Your task to perform on an android device: Open wifi settings Image 0: 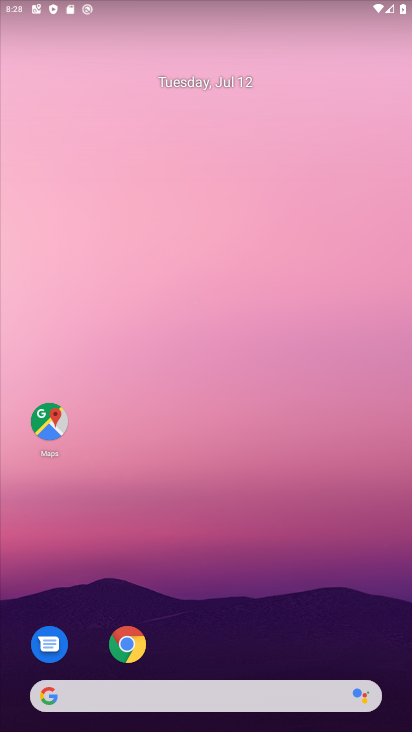
Step 0: drag from (190, 634) to (310, 43)
Your task to perform on an android device: Open wifi settings Image 1: 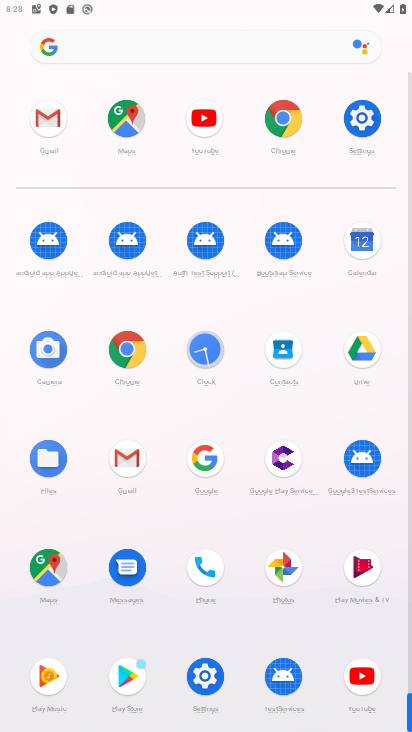
Step 1: click (363, 124)
Your task to perform on an android device: Open wifi settings Image 2: 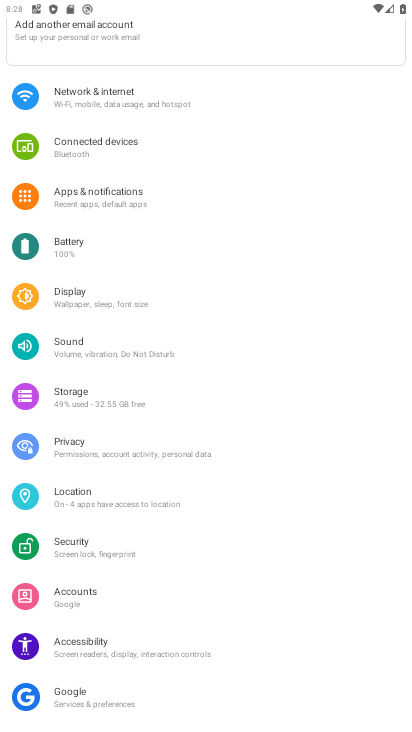
Step 2: drag from (157, 194) to (369, 710)
Your task to perform on an android device: Open wifi settings Image 3: 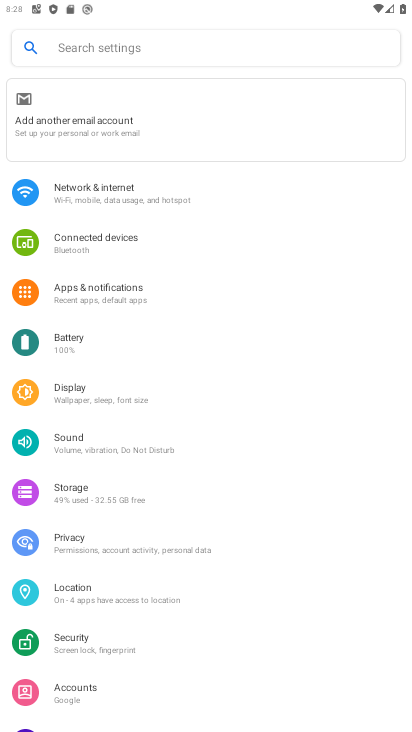
Step 3: click (99, 189)
Your task to perform on an android device: Open wifi settings Image 4: 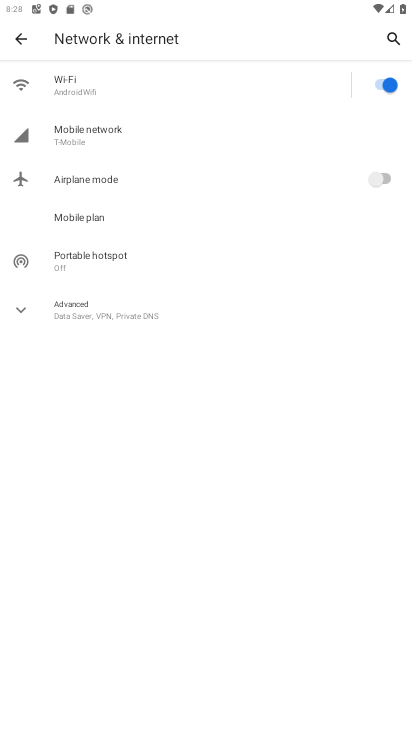
Step 4: click (153, 75)
Your task to perform on an android device: Open wifi settings Image 5: 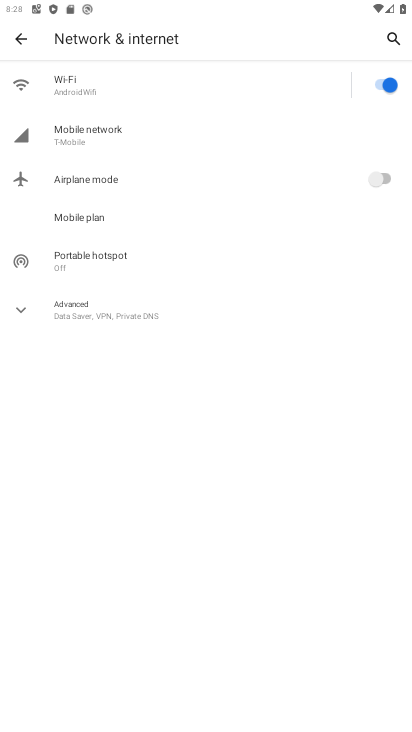
Step 5: click (153, 75)
Your task to perform on an android device: Open wifi settings Image 6: 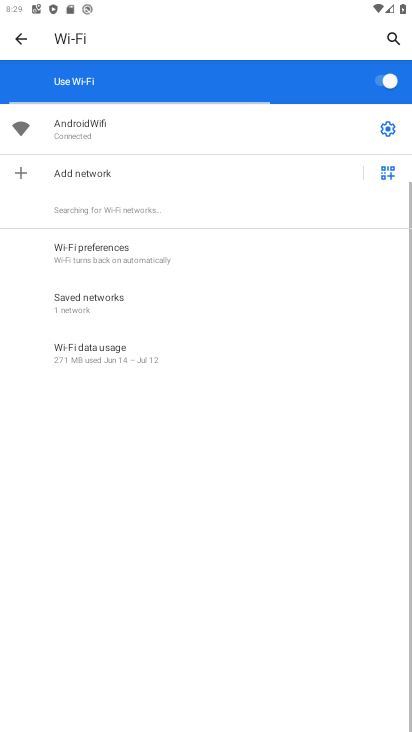
Step 6: click (386, 137)
Your task to perform on an android device: Open wifi settings Image 7: 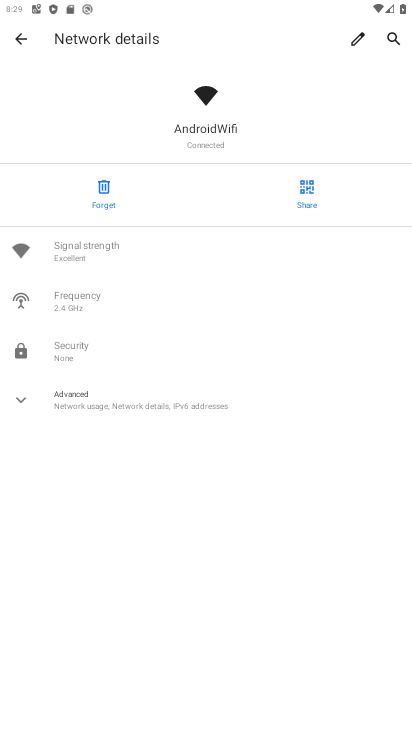
Step 7: task complete